Your task to perform on an android device: open app "Paramount+ | Peak Streaming" Image 0: 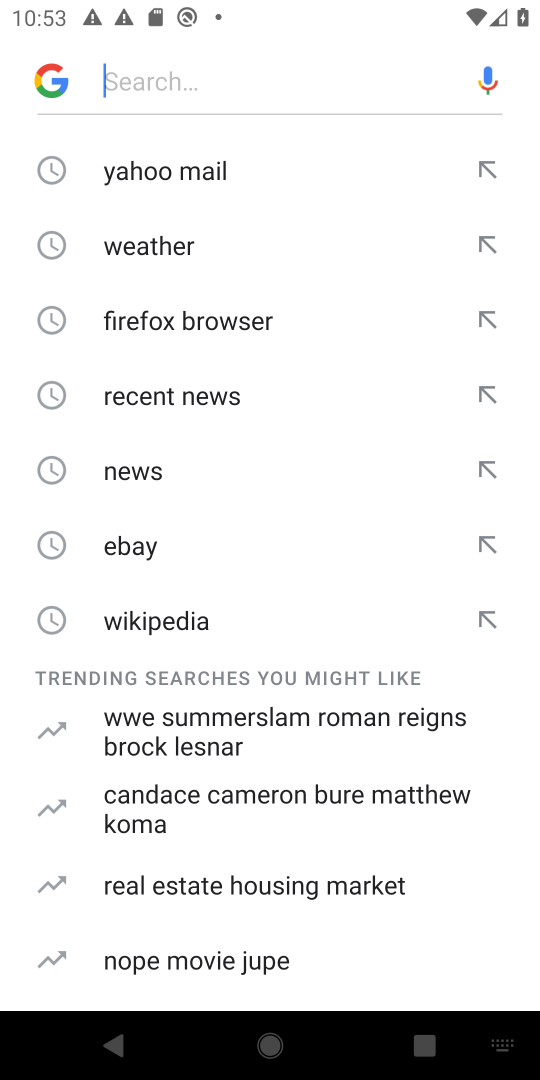
Step 0: press home button
Your task to perform on an android device: open app "Paramount+ | Peak Streaming" Image 1: 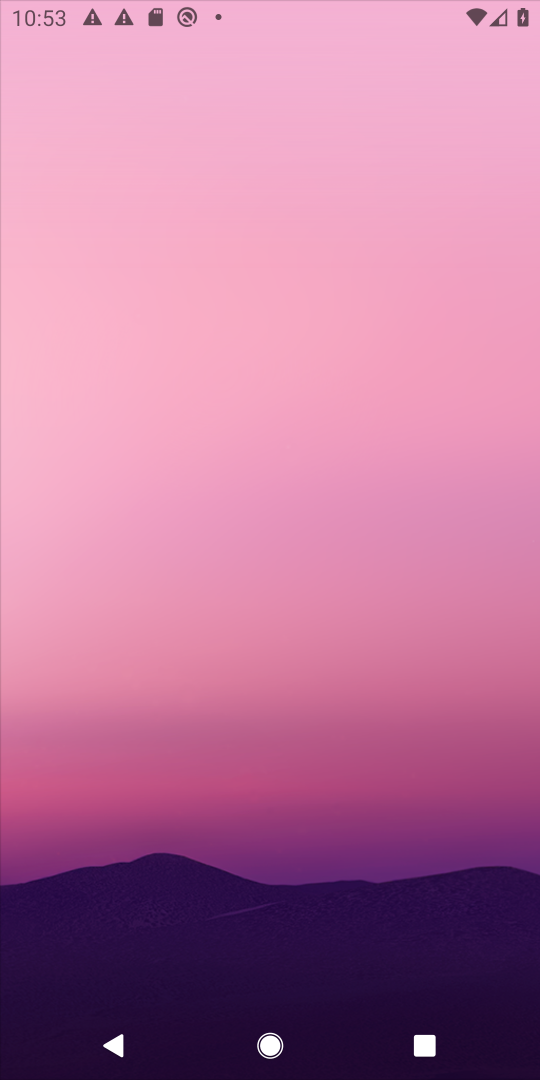
Step 1: drag from (243, 880) to (372, 17)
Your task to perform on an android device: open app "Paramount+ | Peak Streaming" Image 2: 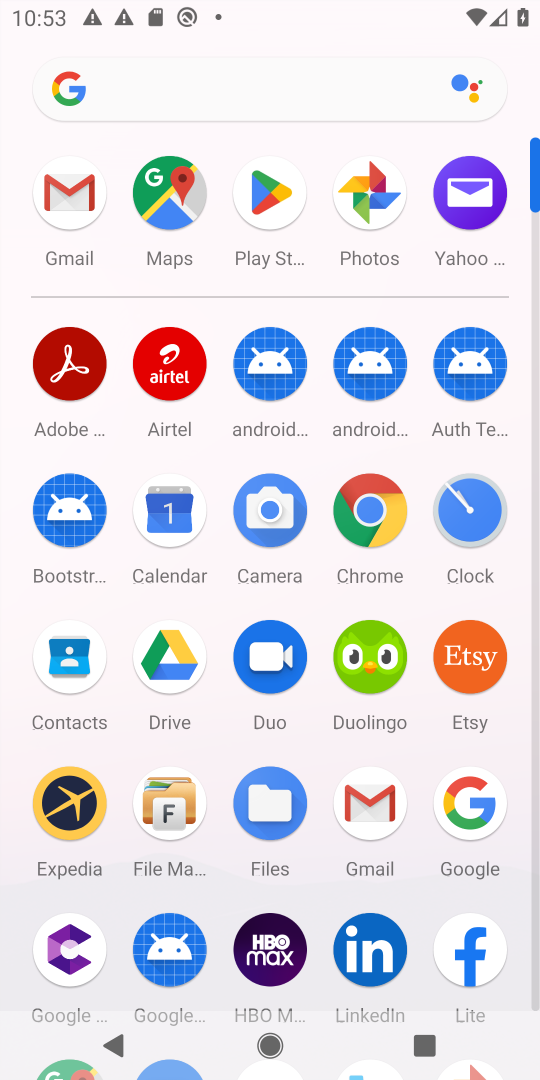
Step 2: click (276, 184)
Your task to perform on an android device: open app "Paramount+ | Peak Streaming" Image 3: 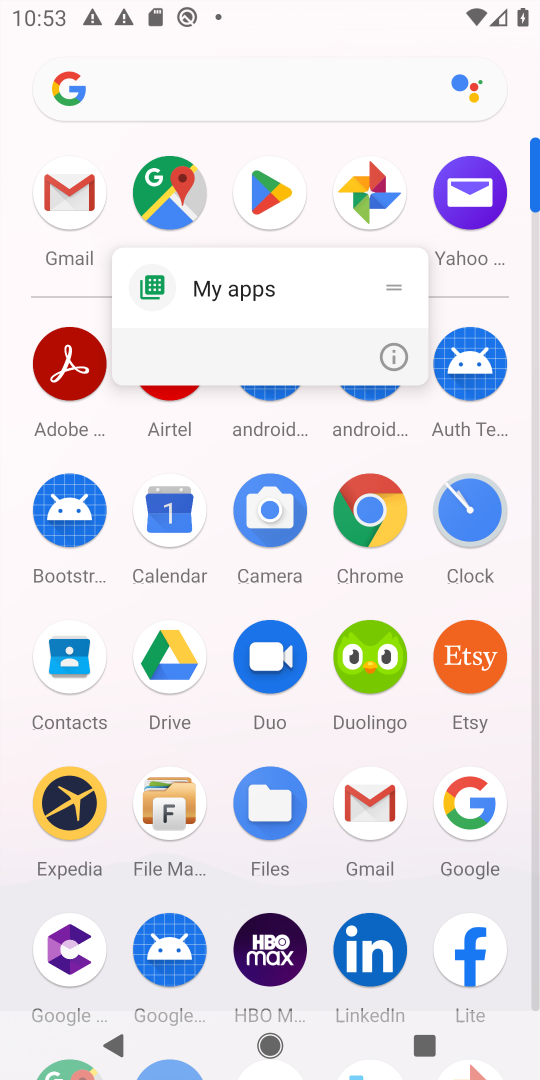
Step 3: click (389, 361)
Your task to perform on an android device: open app "Paramount+ | Peak Streaming" Image 4: 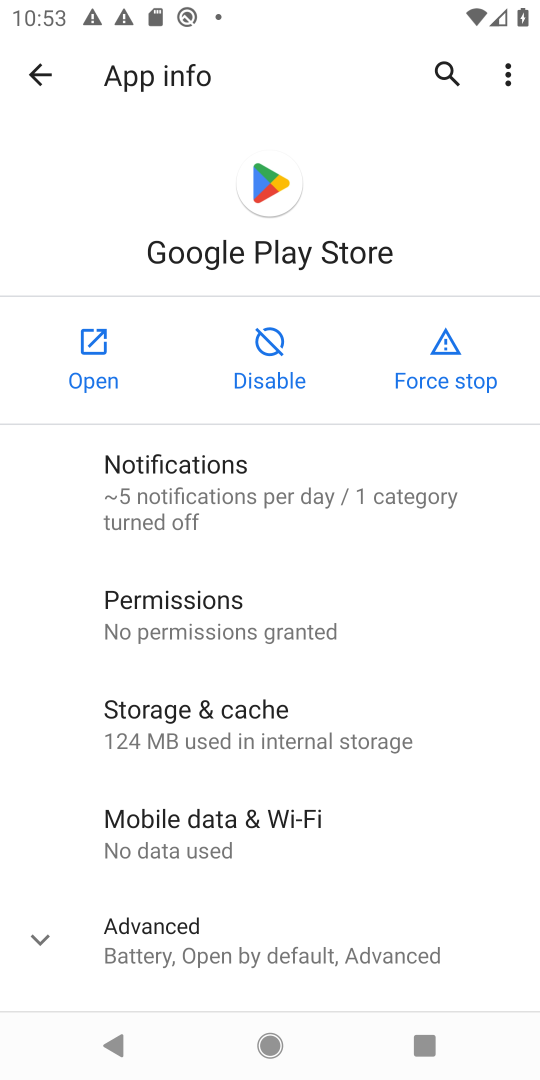
Step 4: click (104, 343)
Your task to perform on an android device: open app "Paramount+ | Peak Streaming" Image 5: 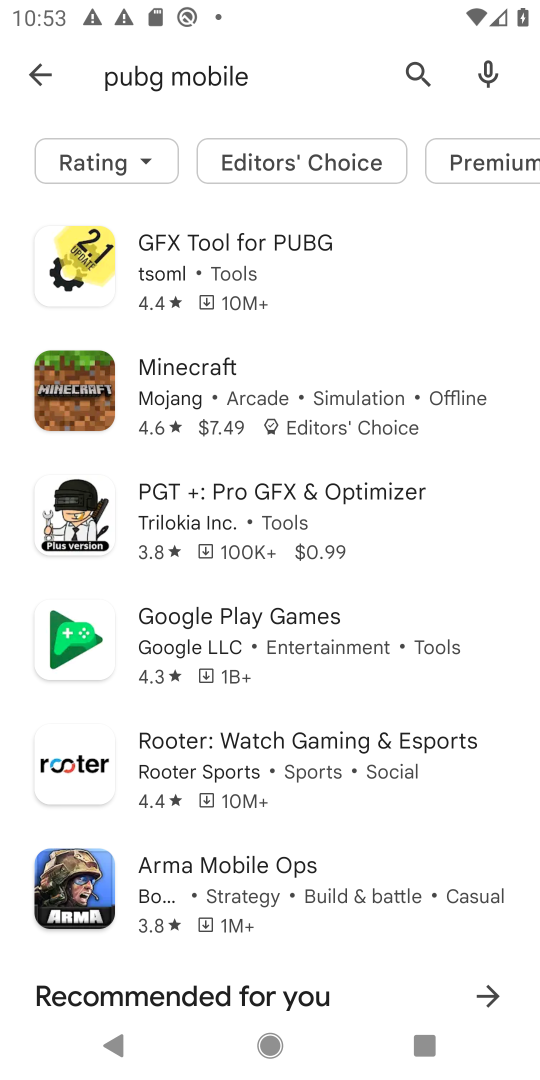
Step 5: click (407, 81)
Your task to perform on an android device: open app "Paramount+ | Peak Streaming" Image 6: 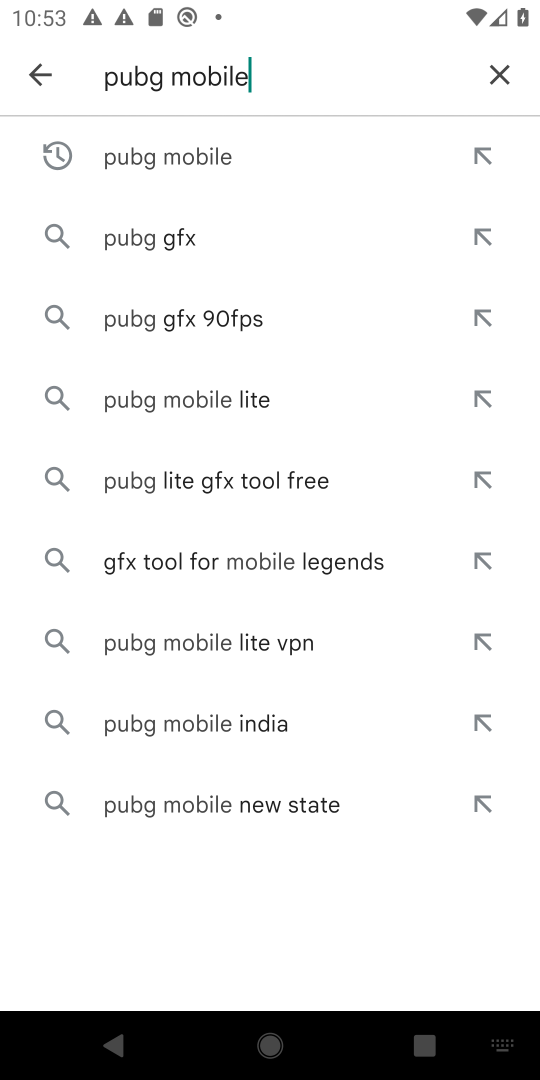
Step 6: click (503, 65)
Your task to perform on an android device: open app "Paramount+ | Peak Streaming" Image 7: 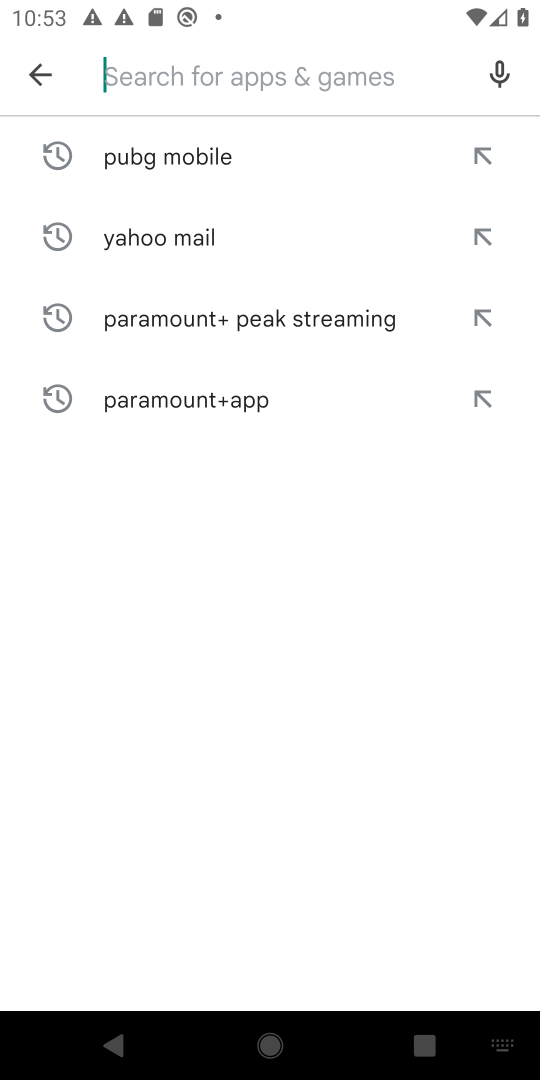
Step 7: click (220, 70)
Your task to perform on an android device: open app "Paramount+ | Peak Streaming" Image 8: 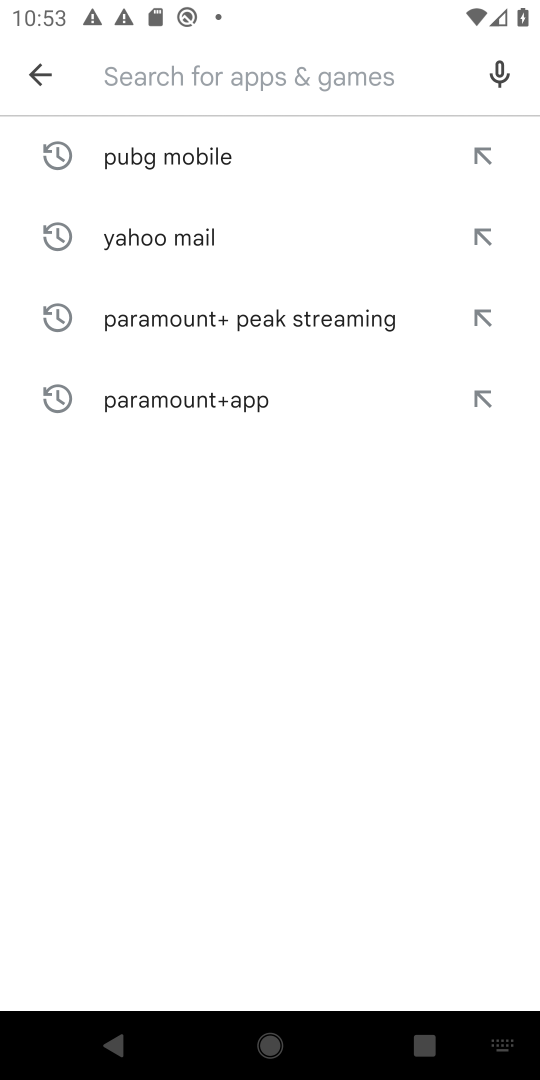
Step 8: type "Paramount+ | Peak Streaming"
Your task to perform on an android device: open app "Paramount+ | Peak Streaming" Image 9: 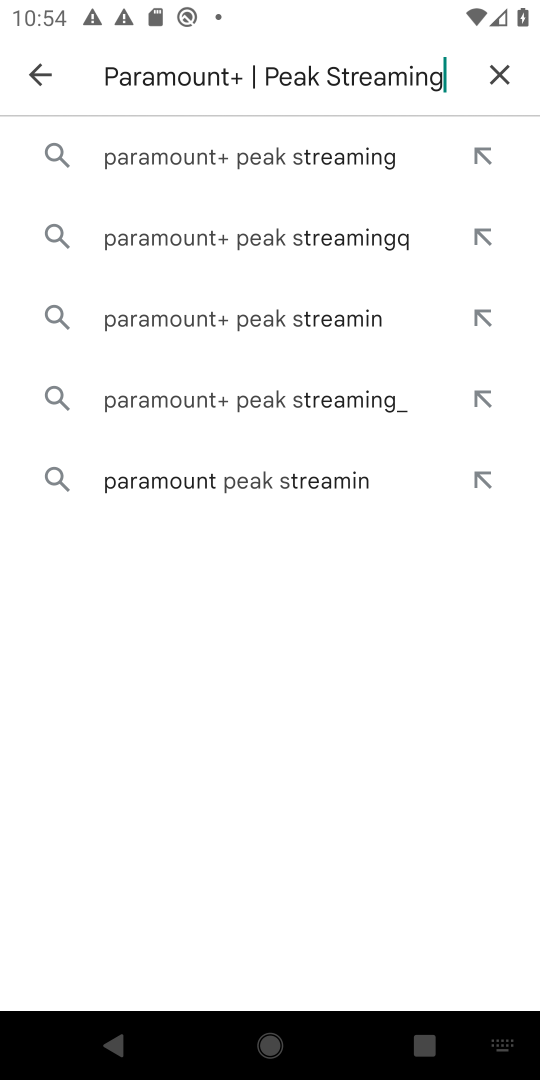
Step 9: type ""
Your task to perform on an android device: open app "Paramount+ | Peak Streaming" Image 10: 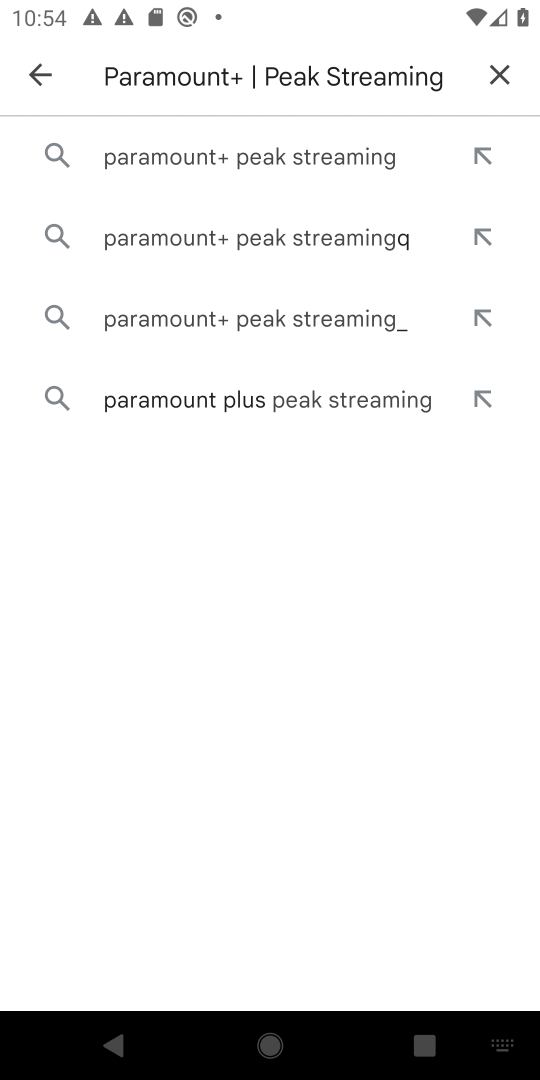
Step 10: click (163, 145)
Your task to perform on an android device: open app "Paramount+ | Peak Streaming" Image 11: 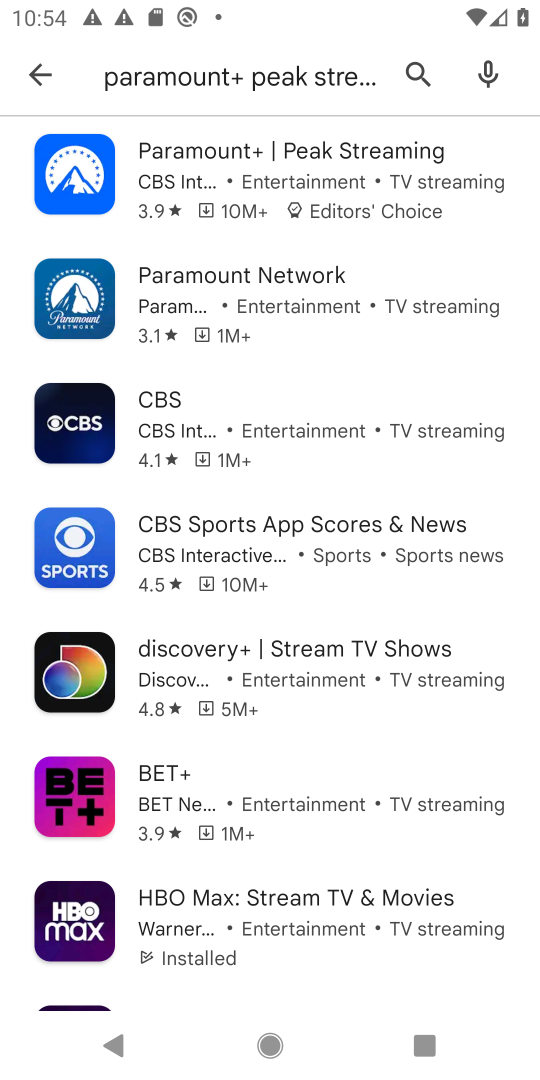
Step 11: click (217, 174)
Your task to perform on an android device: open app "Paramount+ | Peak Streaming" Image 12: 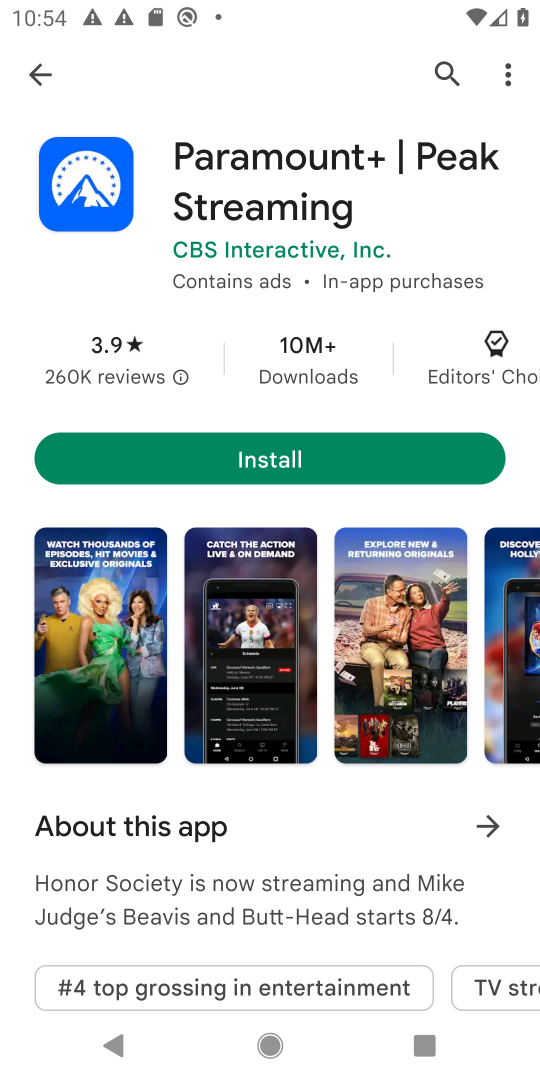
Step 12: click (408, 216)
Your task to perform on an android device: open app "Paramount+ | Peak Streaming" Image 13: 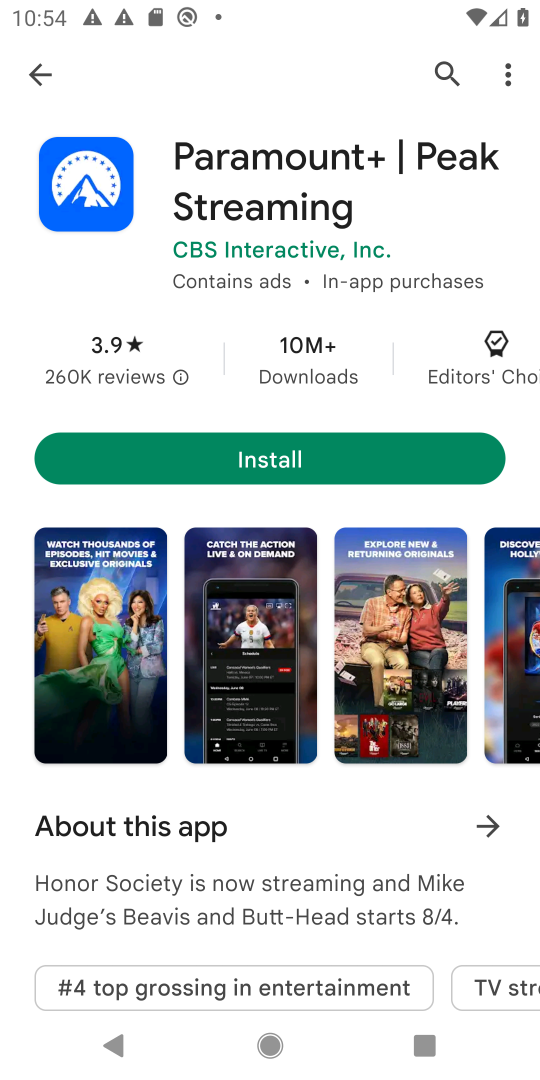
Step 13: task complete